Your task to perform on an android device: toggle show notifications on the lock screen Image 0: 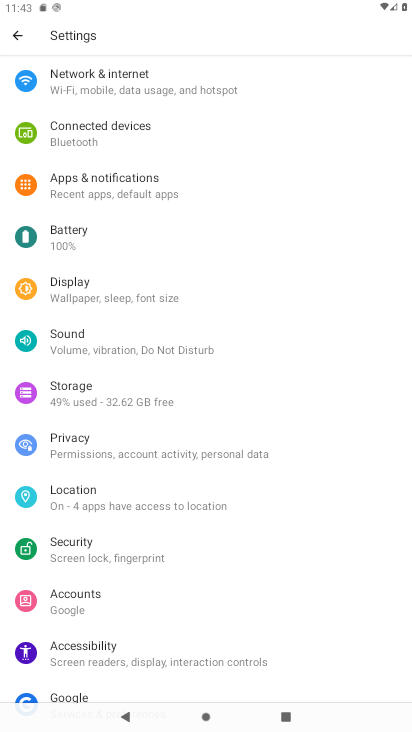
Step 0: click (127, 188)
Your task to perform on an android device: toggle show notifications on the lock screen Image 1: 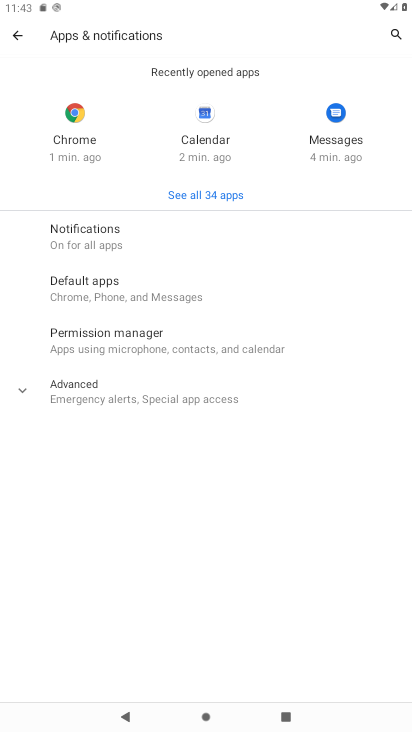
Step 1: click (105, 248)
Your task to perform on an android device: toggle show notifications on the lock screen Image 2: 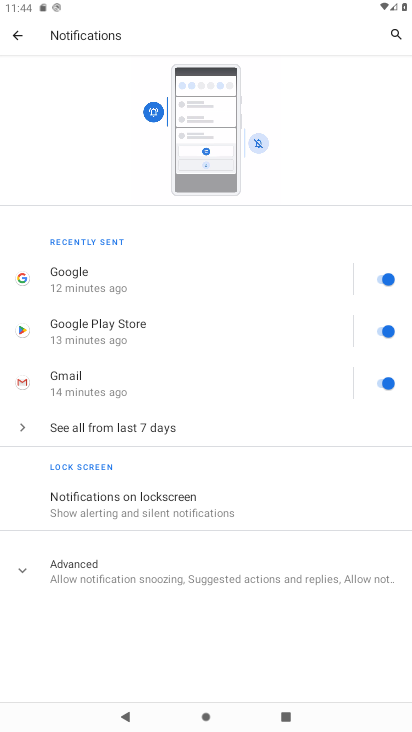
Step 2: click (132, 498)
Your task to perform on an android device: toggle show notifications on the lock screen Image 3: 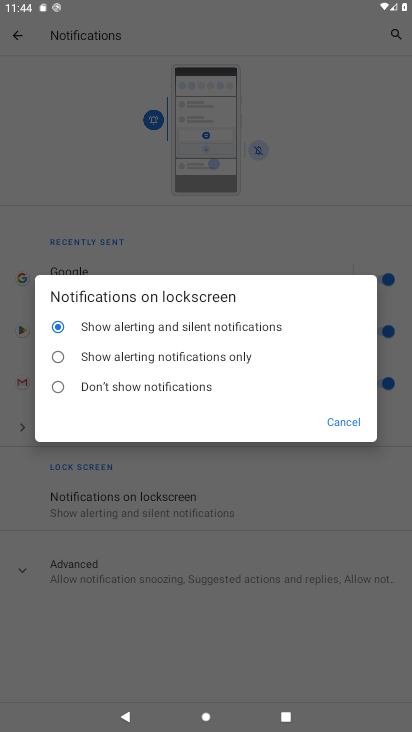
Step 3: click (126, 327)
Your task to perform on an android device: toggle show notifications on the lock screen Image 4: 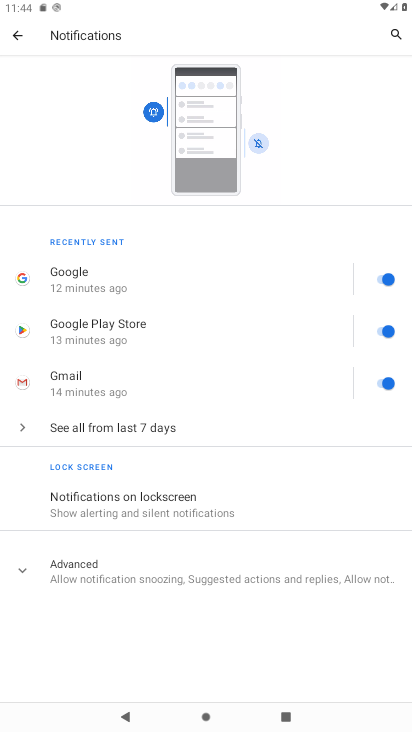
Step 4: task complete